Your task to perform on an android device: install app "Life360: Find Family & Friends" Image 0: 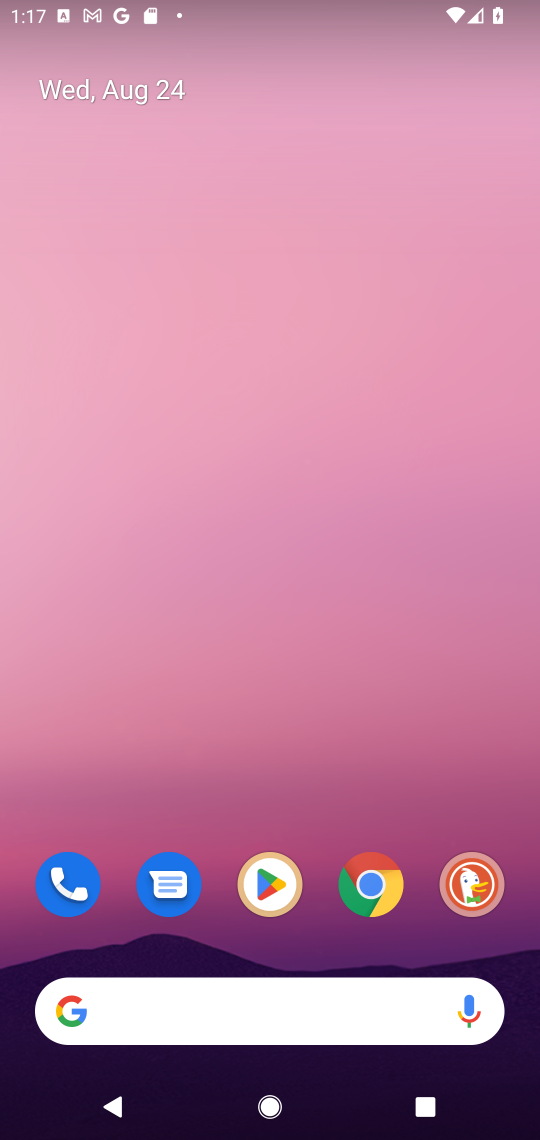
Step 0: drag from (166, 1019) to (281, 260)
Your task to perform on an android device: install app "Life360: Find Family & Friends" Image 1: 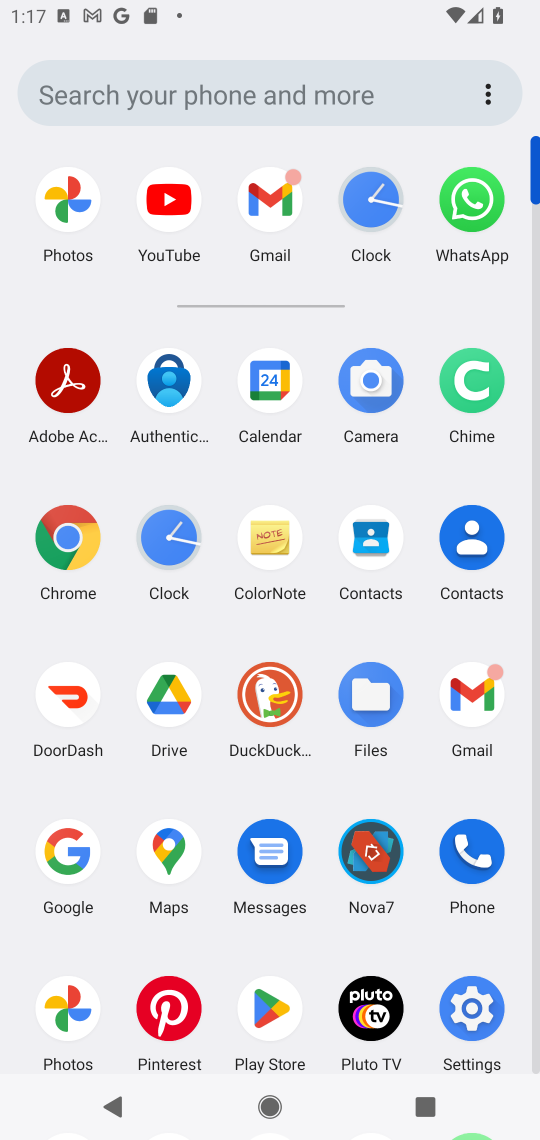
Step 1: click (273, 1010)
Your task to perform on an android device: install app "Life360: Find Family & Friends" Image 2: 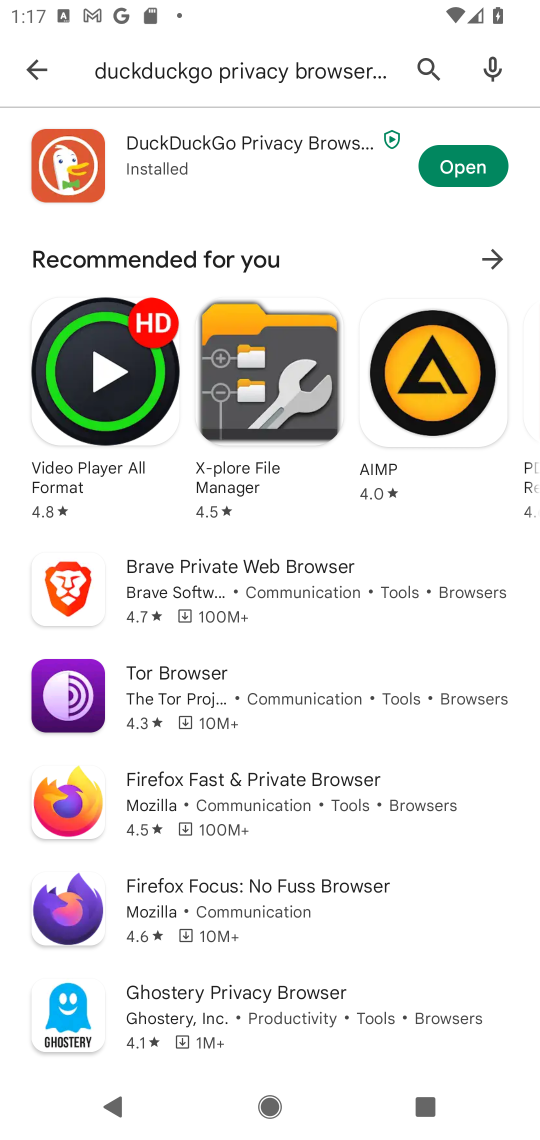
Step 2: press home button
Your task to perform on an android device: install app "Life360: Find Family & Friends" Image 3: 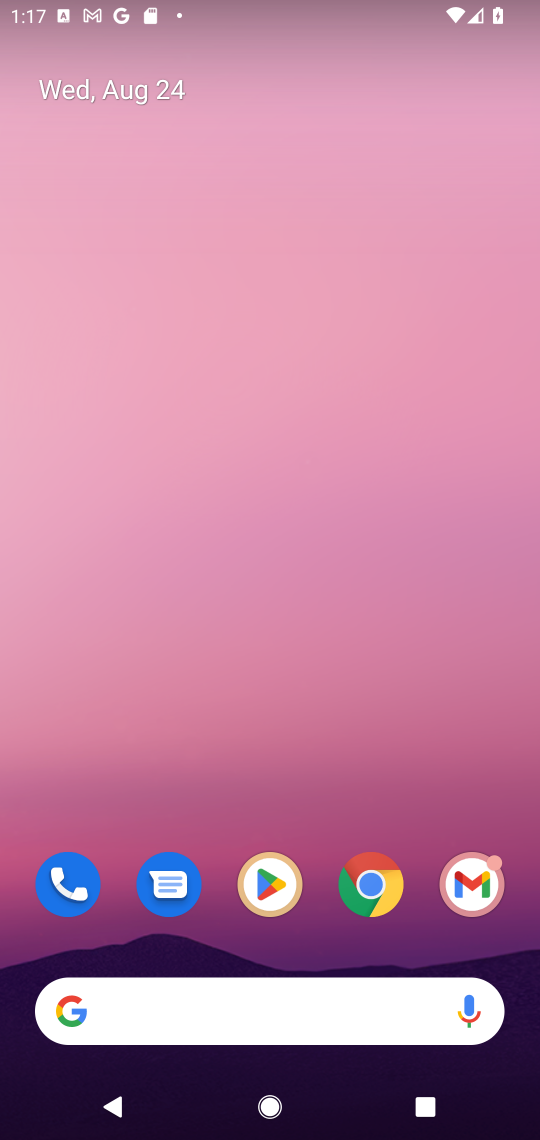
Step 3: drag from (257, 1007) to (229, 175)
Your task to perform on an android device: install app "Life360: Find Family & Friends" Image 4: 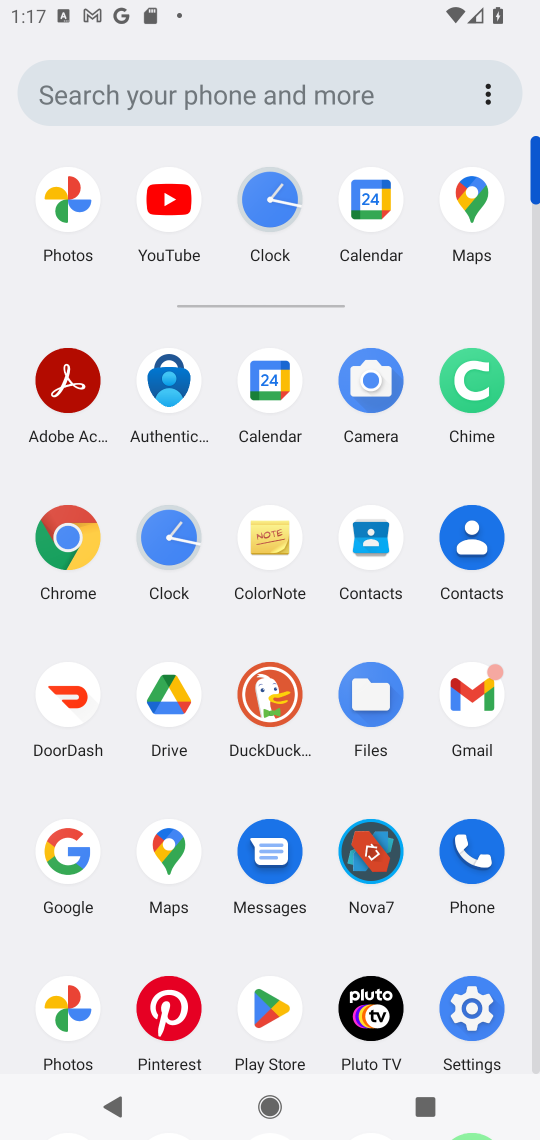
Step 4: click (275, 1011)
Your task to perform on an android device: install app "Life360: Find Family & Friends" Image 5: 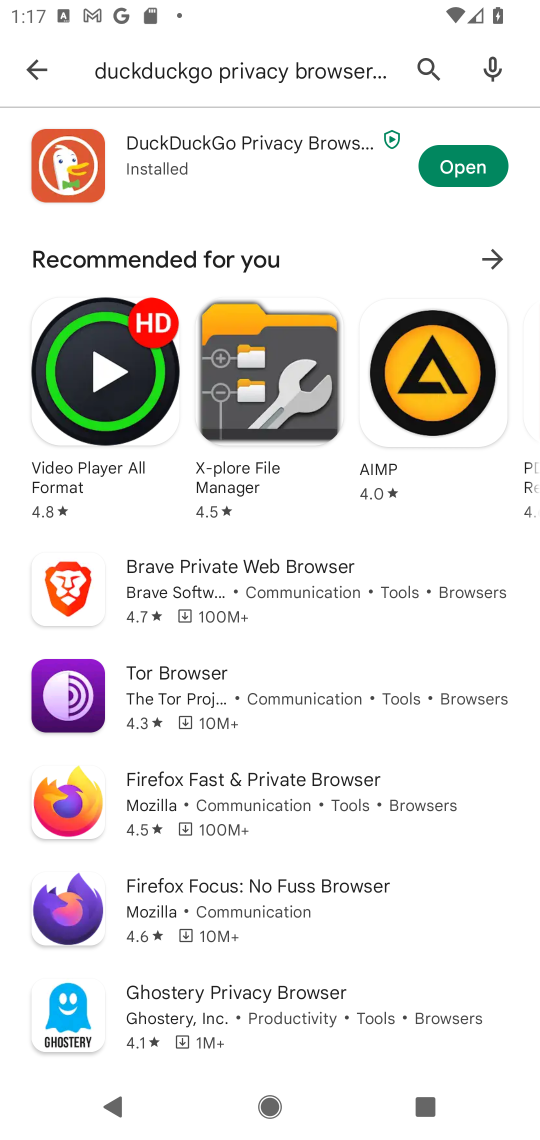
Step 5: press back button
Your task to perform on an android device: install app "Life360: Find Family & Friends" Image 6: 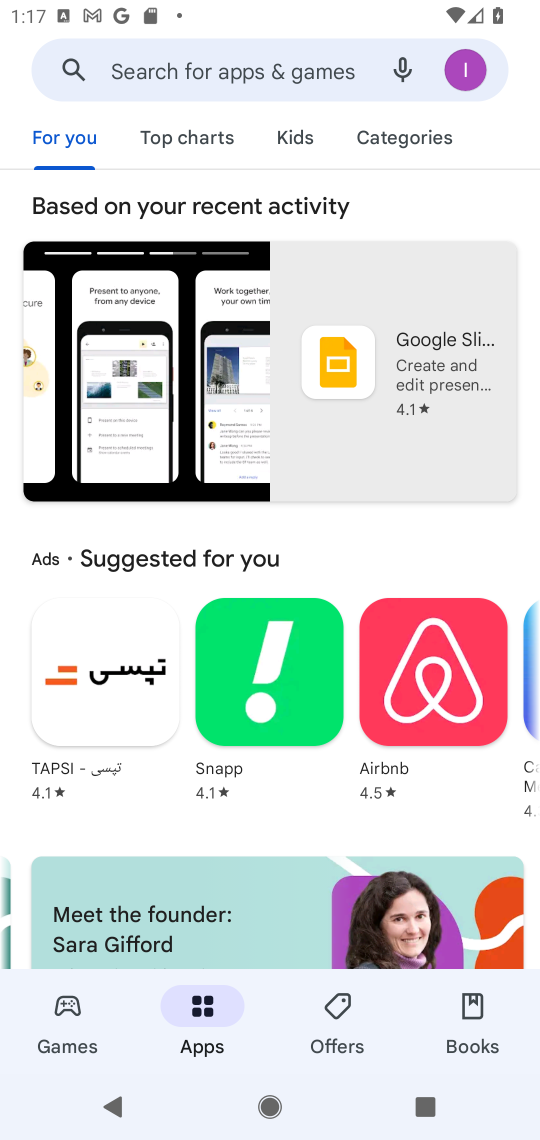
Step 6: click (261, 80)
Your task to perform on an android device: install app "Life360: Find Family & Friends" Image 7: 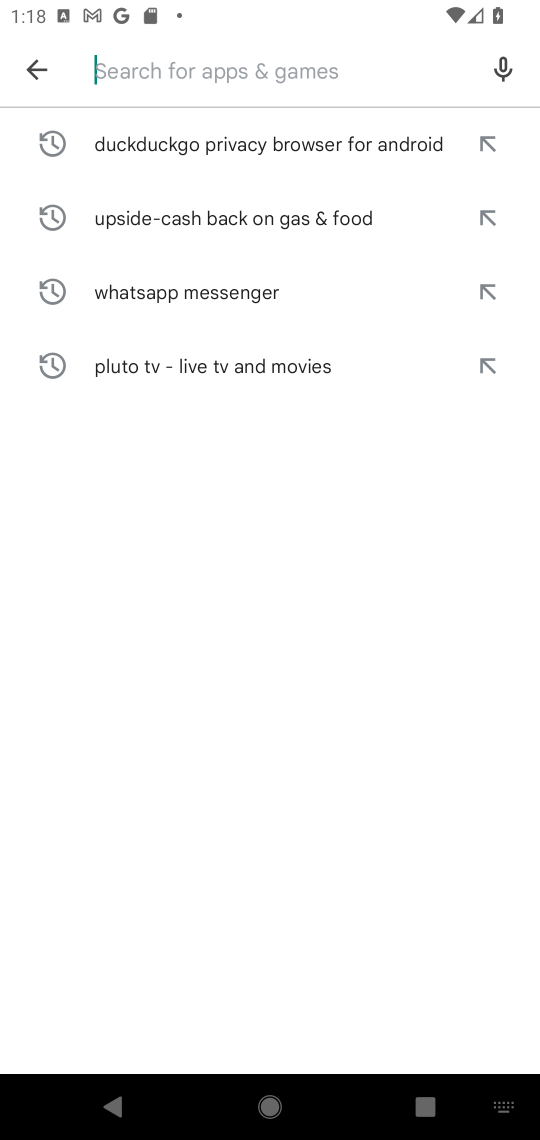
Step 7: click (144, 67)
Your task to perform on an android device: install app "Life360: Find Family & Friends" Image 8: 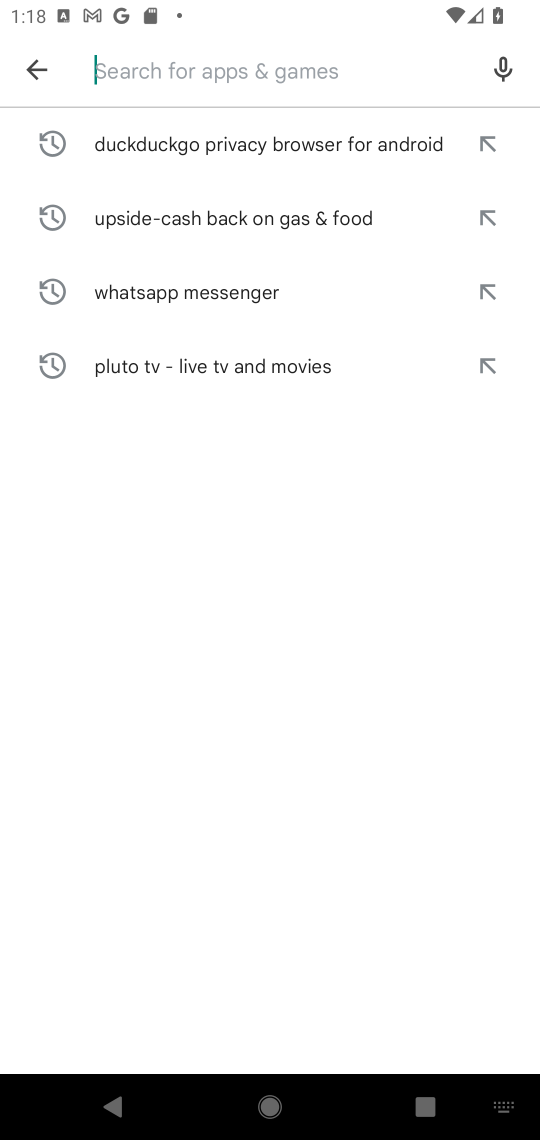
Step 8: type "Life360: Find Family & Friends"
Your task to perform on an android device: install app "Life360: Find Family & Friends" Image 9: 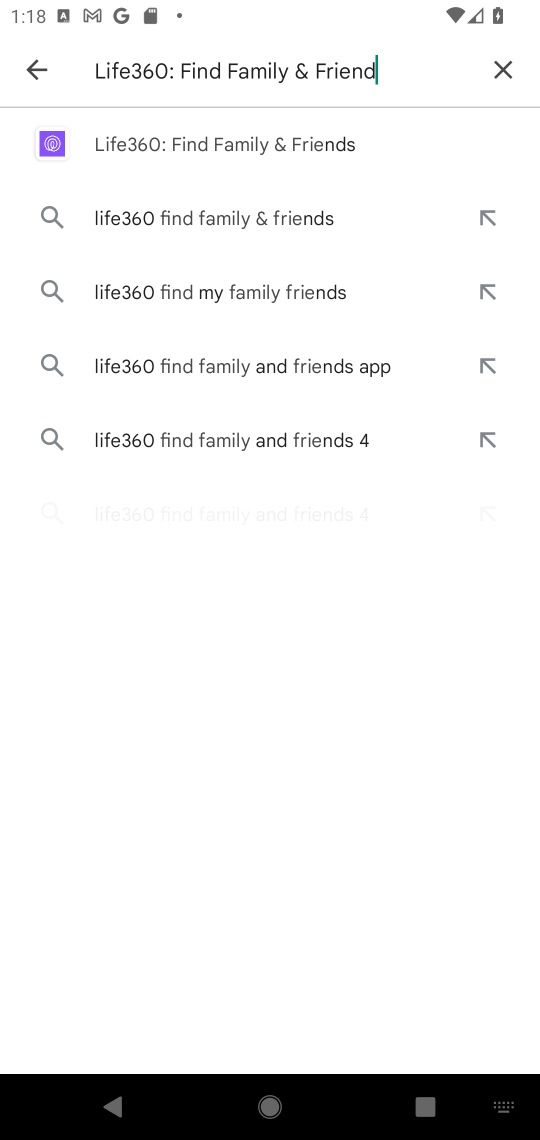
Step 9: type ""
Your task to perform on an android device: install app "Life360: Find Family & Friends" Image 10: 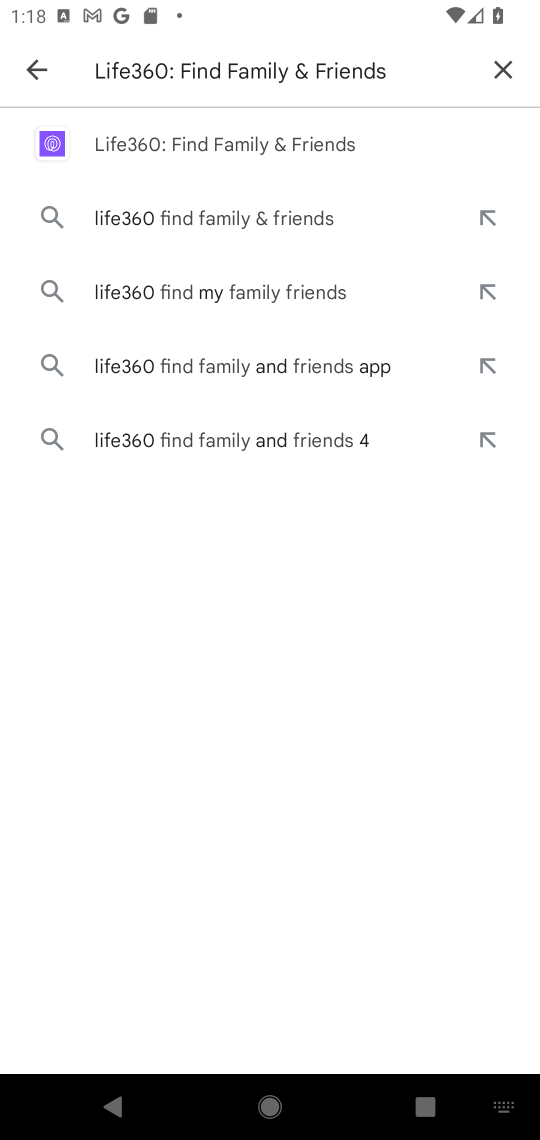
Step 10: click (121, 145)
Your task to perform on an android device: install app "Life360: Find Family & Friends" Image 11: 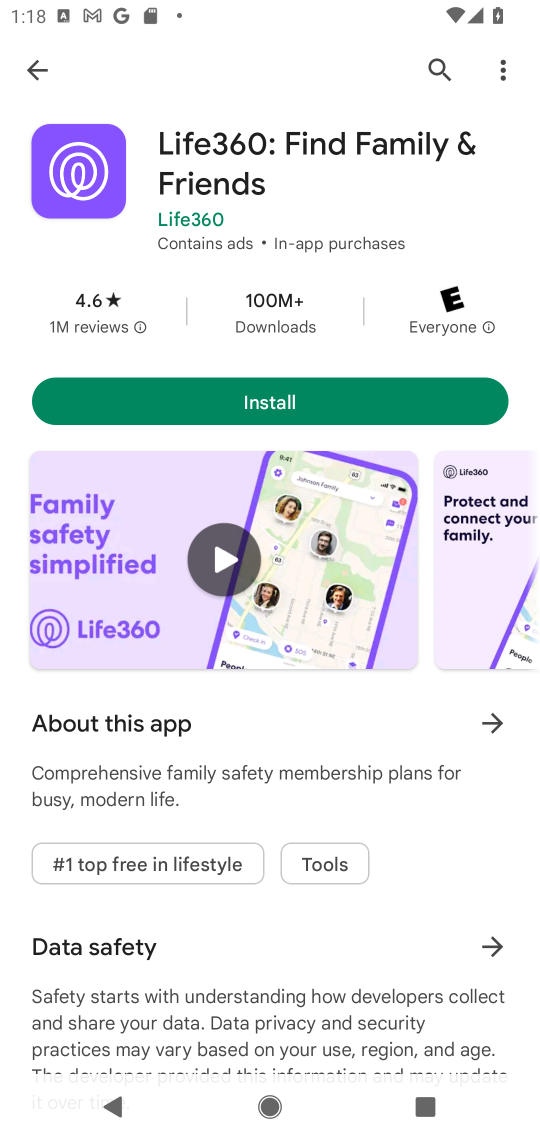
Step 11: click (286, 413)
Your task to perform on an android device: install app "Life360: Find Family & Friends" Image 12: 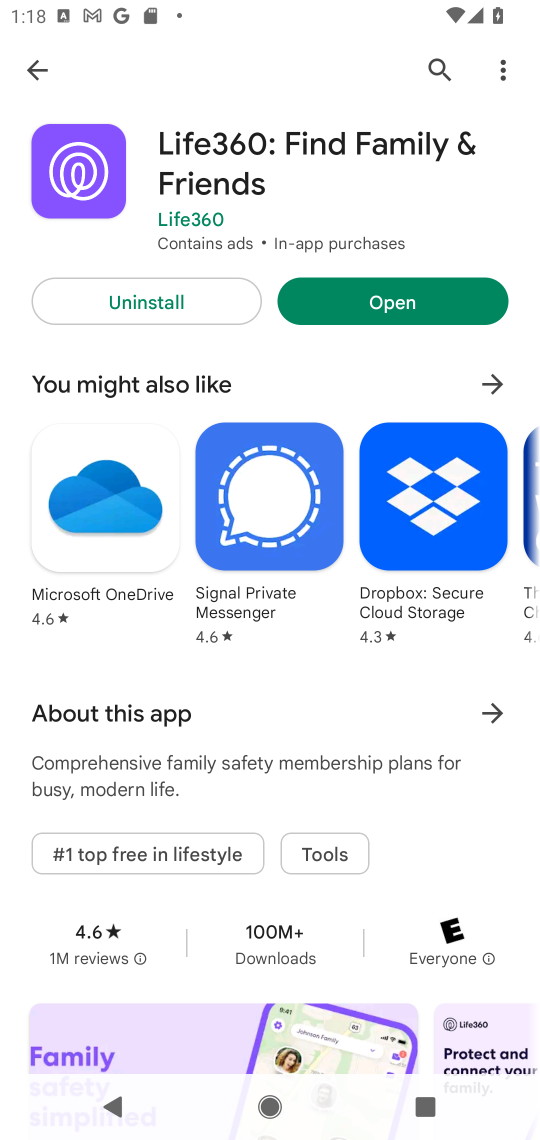
Step 12: task complete